Your task to perform on an android device: read, delete, or share a saved page in the chrome app Image 0: 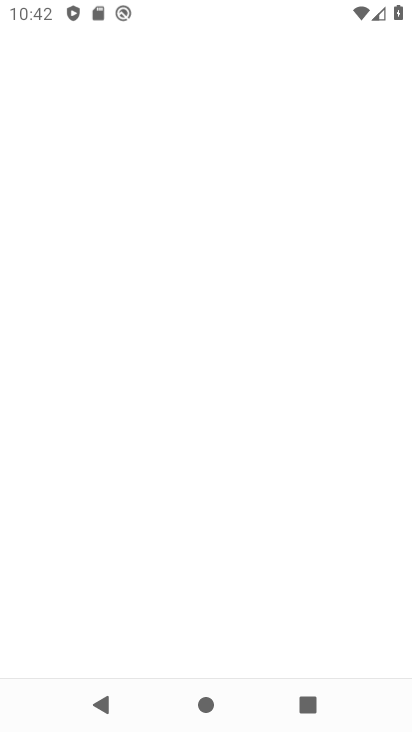
Step 0: drag from (259, 582) to (302, 499)
Your task to perform on an android device: read, delete, or share a saved page in the chrome app Image 1: 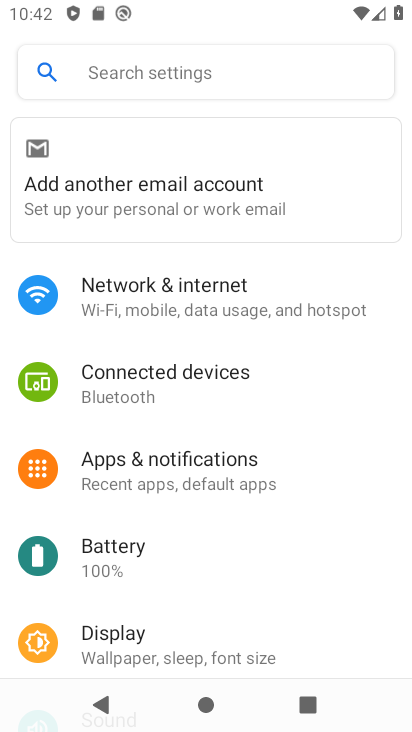
Step 1: press back button
Your task to perform on an android device: read, delete, or share a saved page in the chrome app Image 2: 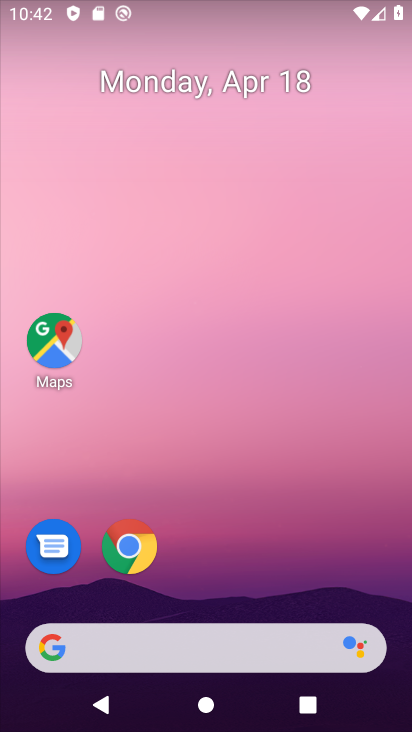
Step 2: drag from (264, 568) to (293, 98)
Your task to perform on an android device: read, delete, or share a saved page in the chrome app Image 3: 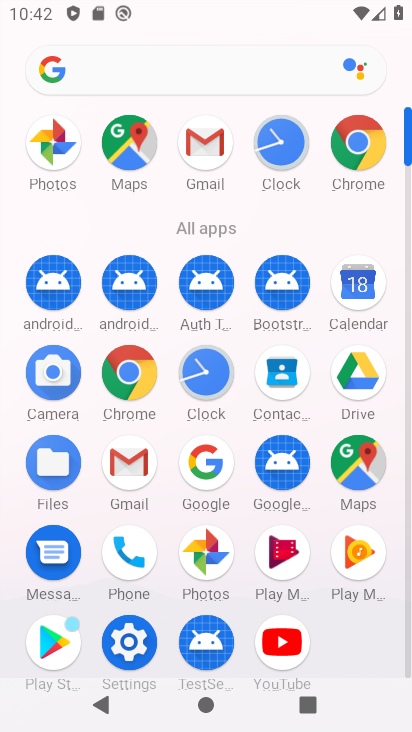
Step 3: click (369, 133)
Your task to perform on an android device: read, delete, or share a saved page in the chrome app Image 4: 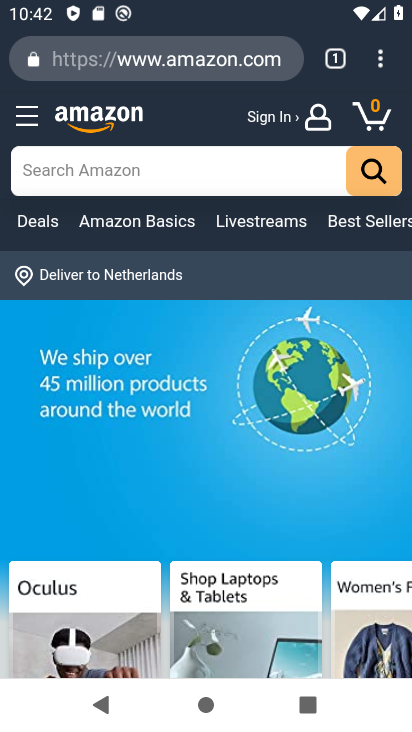
Step 4: click (377, 74)
Your task to perform on an android device: read, delete, or share a saved page in the chrome app Image 5: 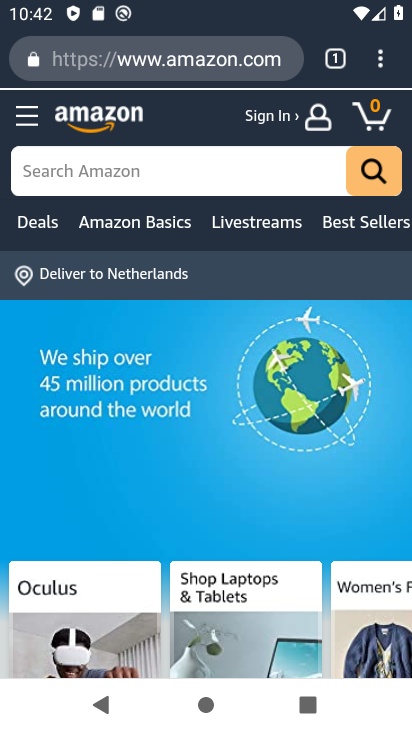
Step 5: click (377, 61)
Your task to perform on an android device: read, delete, or share a saved page in the chrome app Image 6: 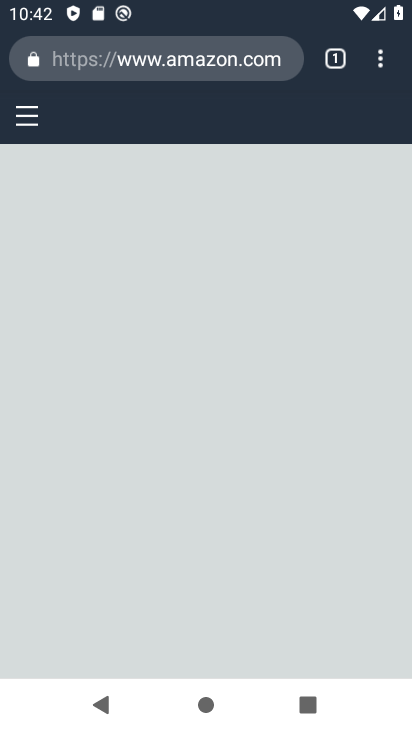
Step 6: click (396, 53)
Your task to perform on an android device: read, delete, or share a saved page in the chrome app Image 7: 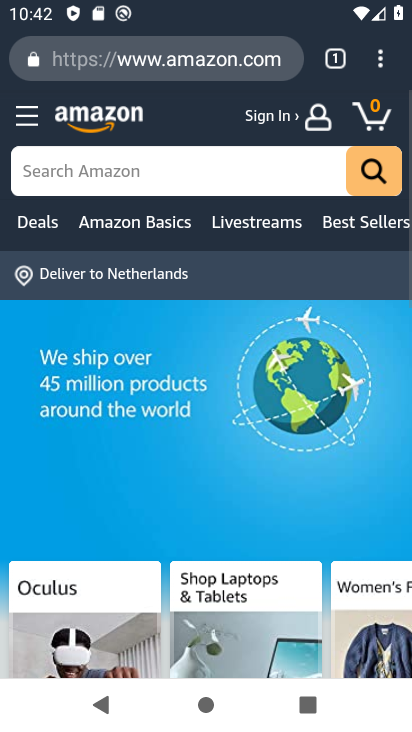
Step 7: click (373, 57)
Your task to perform on an android device: read, delete, or share a saved page in the chrome app Image 8: 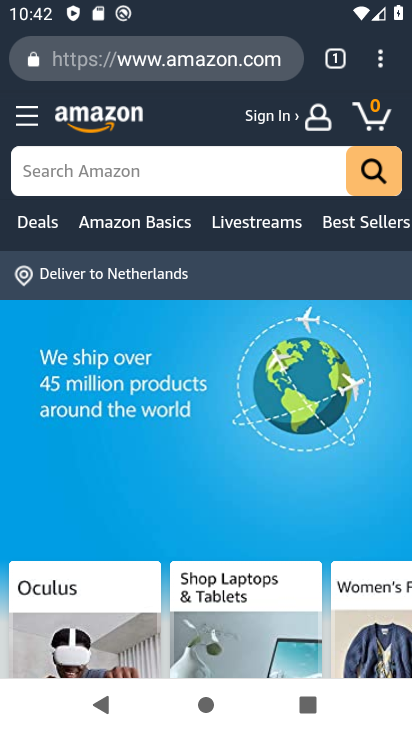
Step 8: click (376, 52)
Your task to perform on an android device: read, delete, or share a saved page in the chrome app Image 9: 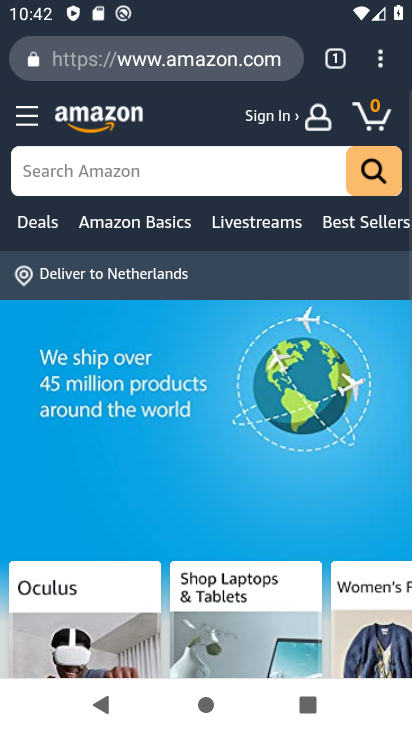
Step 9: click (379, 66)
Your task to perform on an android device: read, delete, or share a saved page in the chrome app Image 10: 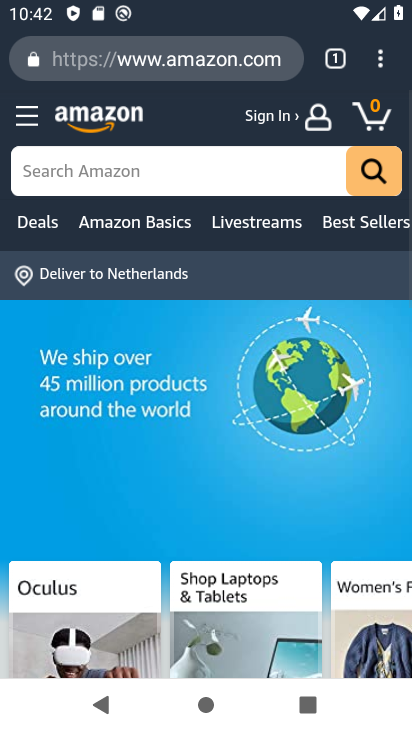
Step 10: click (387, 74)
Your task to perform on an android device: read, delete, or share a saved page in the chrome app Image 11: 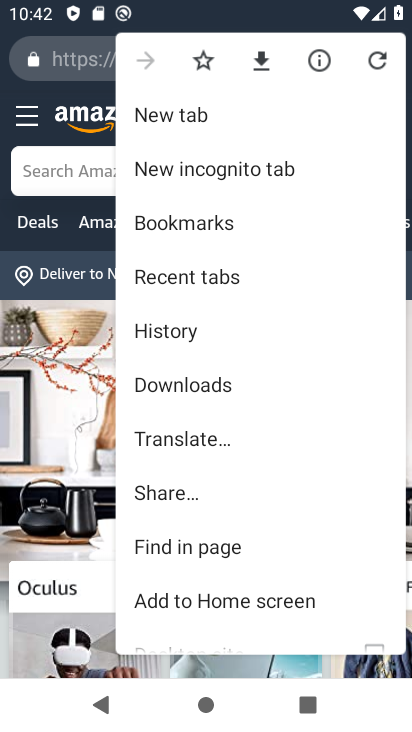
Step 11: click (200, 378)
Your task to perform on an android device: read, delete, or share a saved page in the chrome app Image 12: 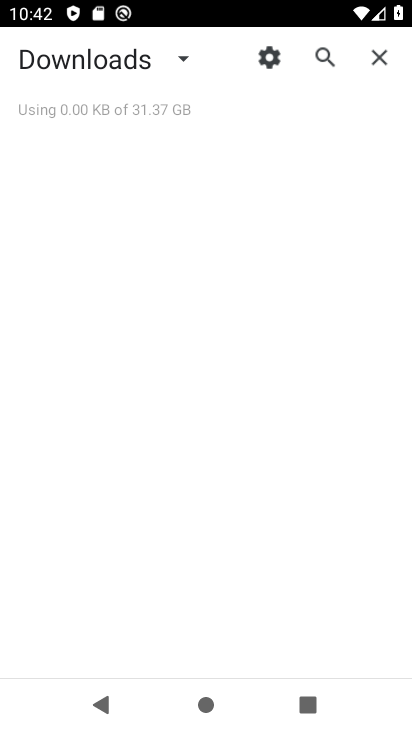
Step 12: task complete